Your task to perform on an android device: show emergency info Image 0: 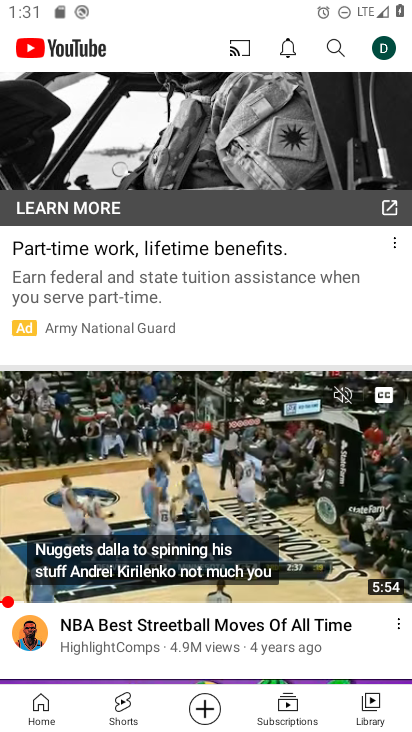
Step 0: press home button
Your task to perform on an android device: show emergency info Image 1: 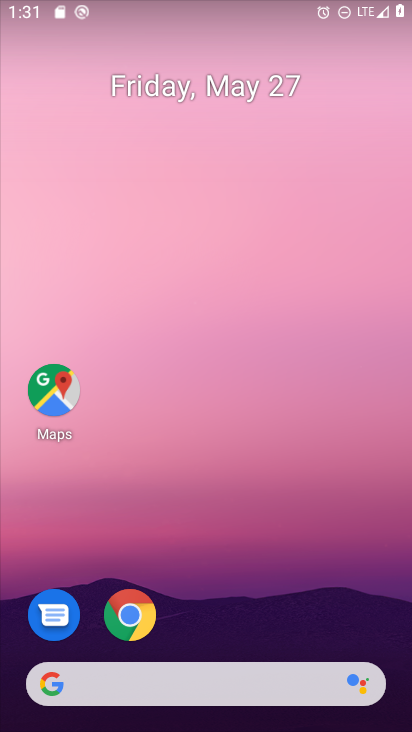
Step 1: drag from (278, 683) to (409, 95)
Your task to perform on an android device: show emergency info Image 2: 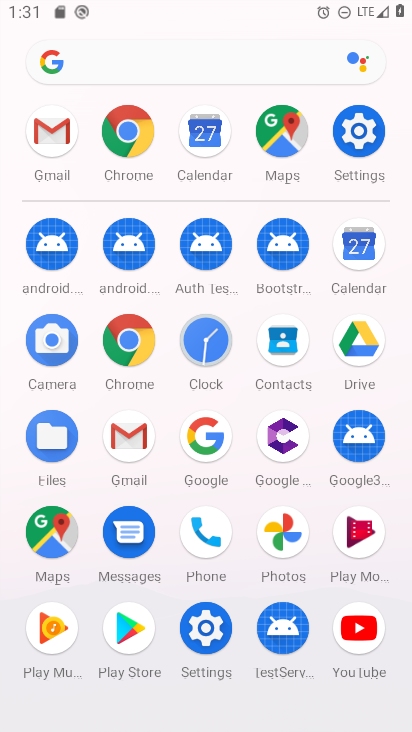
Step 2: click (129, 448)
Your task to perform on an android device: show emergency info Image 3: 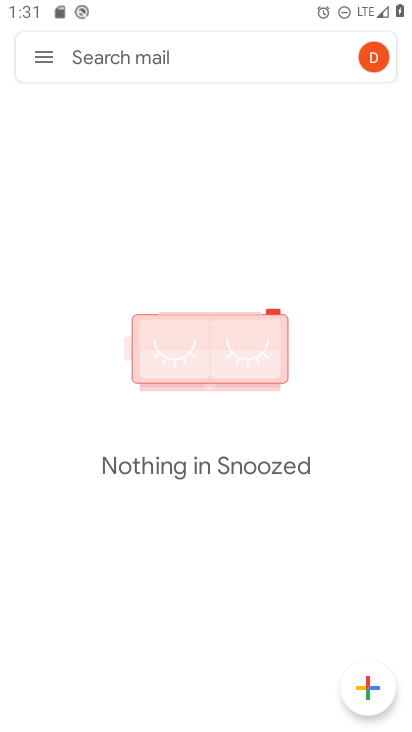
Step 3: press home button
Your task to perform on an android device: show emergency info Image 4: 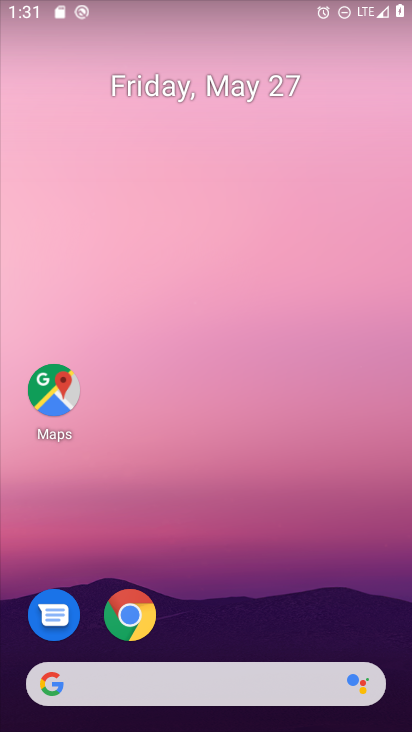
Step 4: drag from (278, 671) to (357, 8)
Your task to perform on an android device: show emergency info Image 5: 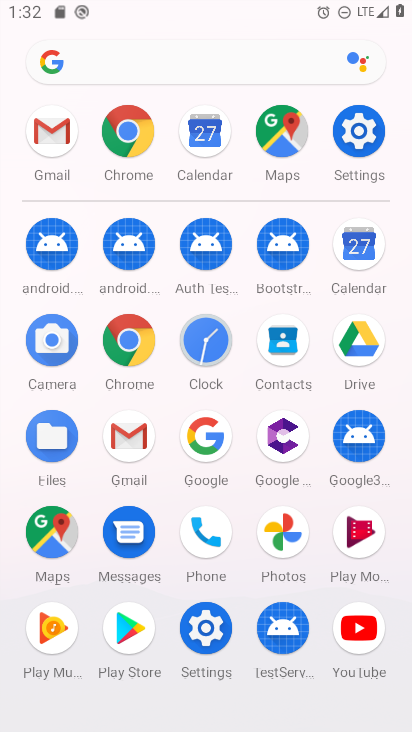
Step 5: click (197, 634)
Your task to perform on an android device: show emergency info Image 6: 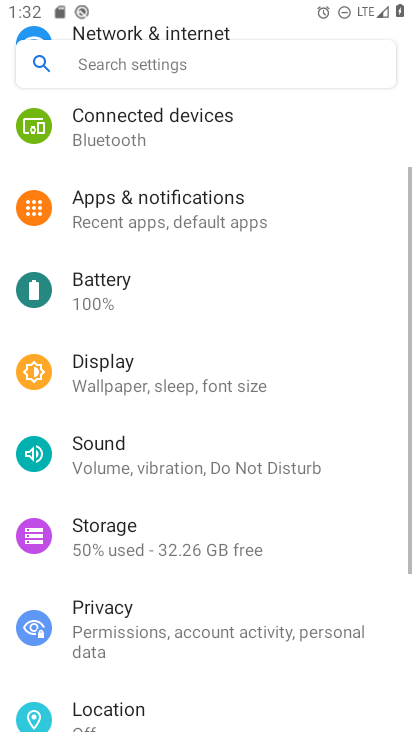
Step 6: drag from (238, 702) to (41, 649)
Your task to perform on an android device: show emergency info Image 7: 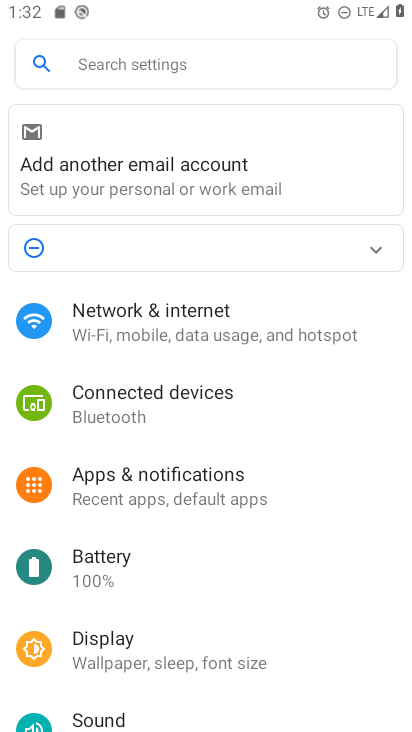
Step 7: drag from (170, 687) to (206, 167)
Your task to perform on an android device: show emergency info Image 8: 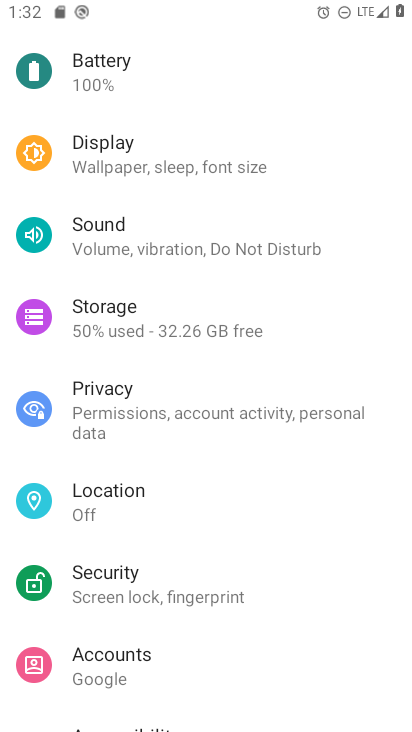
Step 8: drag from (204, 688) to (202, 168)
Your task to perform on an android device: show emergency info Image 9: 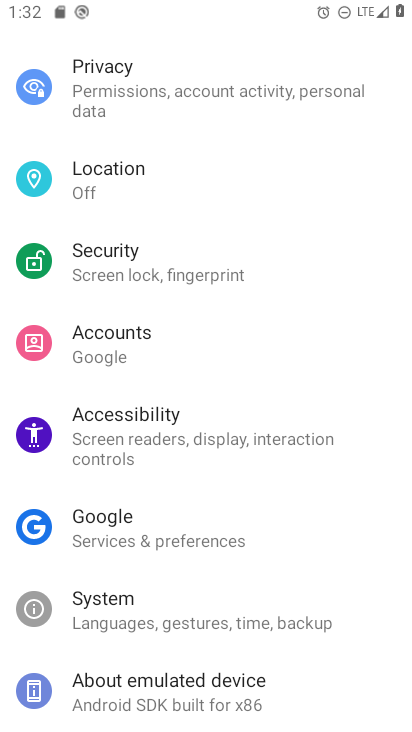
Step 9: click (137, 693)
Your task to perform on an android device: show emergency info Image 10: 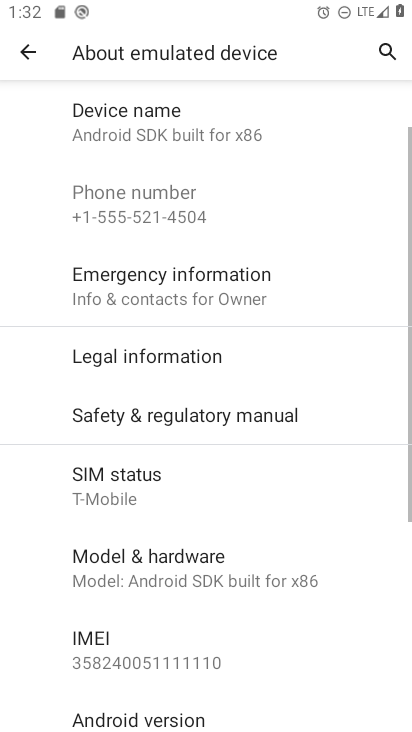
Step 10: click (175, 694)
Your task to perform on an android device: show emergency info Image 11: 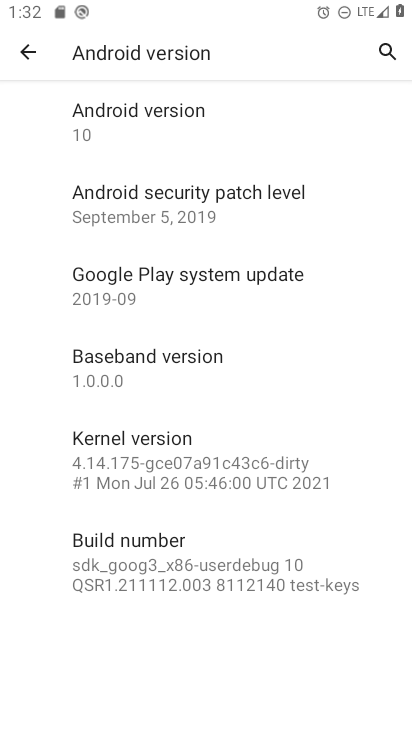
Step 11: click (214, 284)
Your task to perform on an android device: show emergency info Image 12: 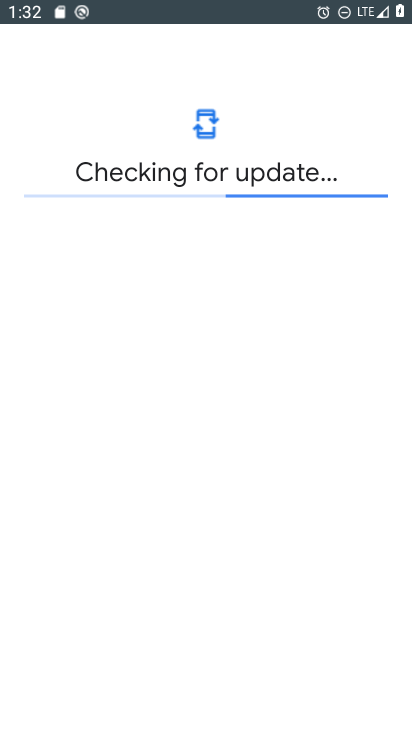
Step 12: task complete